Your task to perform on an android device: uninstall "LinkedIn" Image 0: 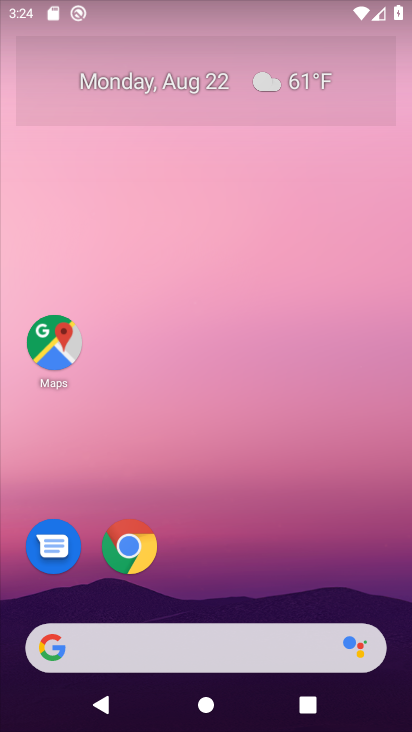
Step 0: drag from (391, 607) to (352, 127)
Your task to perform on an android device: uninstall "LinkedIn" Image 1: 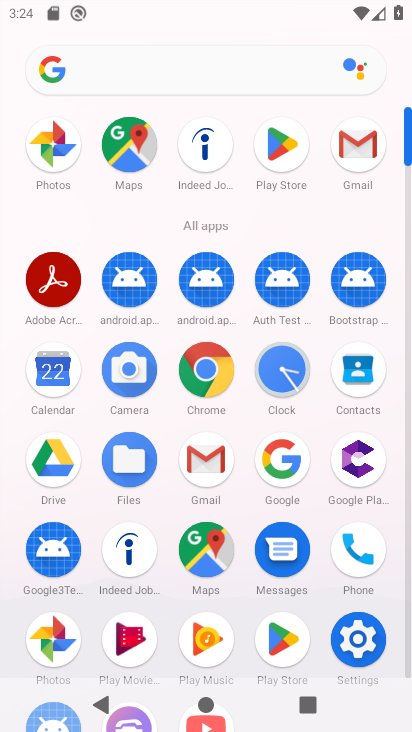
Step 1: click (285, 640)
Your task to perform on an android device: uninstall "LinkedIn" Image 2: 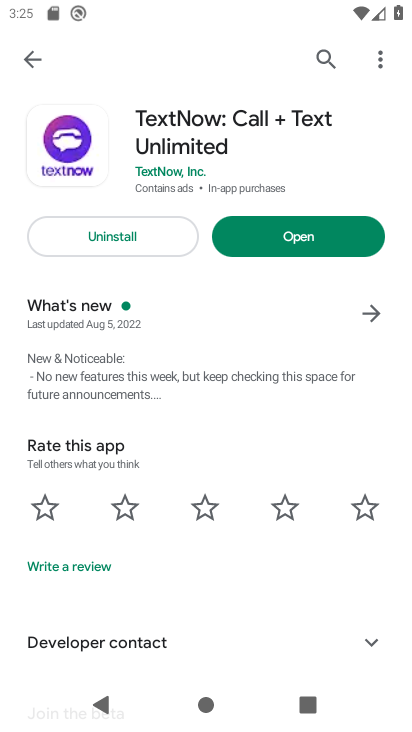
Step 2: click (322, 54)
Your task to perform on an android device: uninstall "LinkedIn" Image 3: 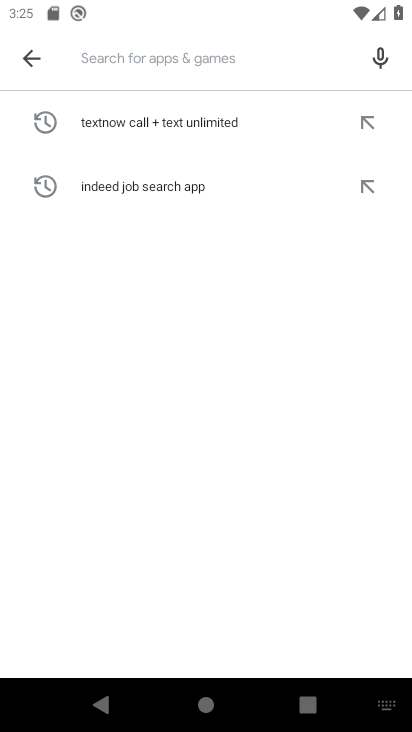
Step 3: type "LinkedIn"
Your task to perform on an android device: uninstall "LinkedIn" Image 4: 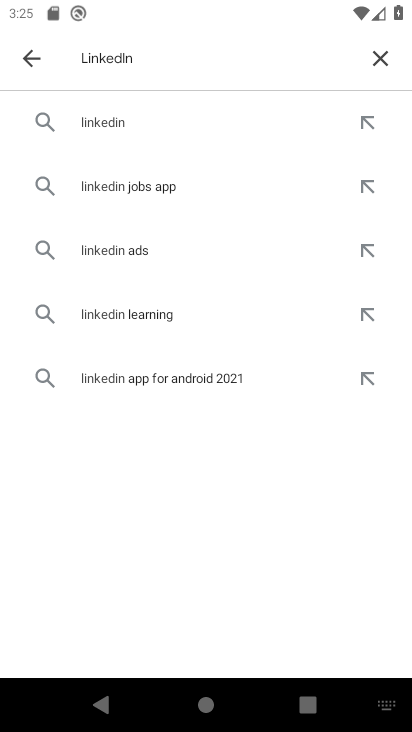
Step 4: click (90, 123)
Your task to perform on an android device: uninstall "LinkedIn" Image 5: 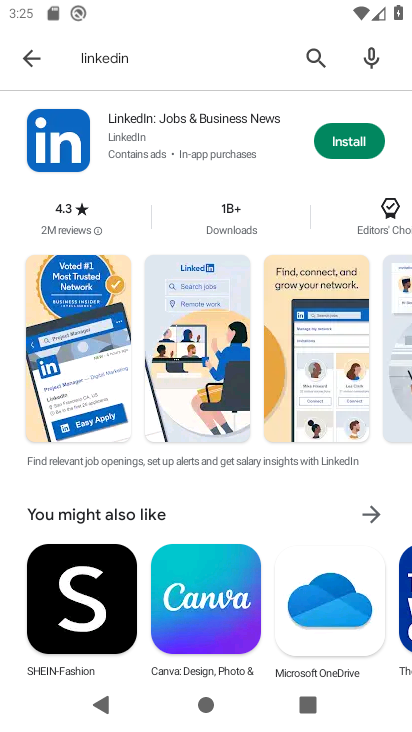
Step 5: click (124, 124)
Your task to perform on an android device: uninstall "LinkedIn" Image 6: 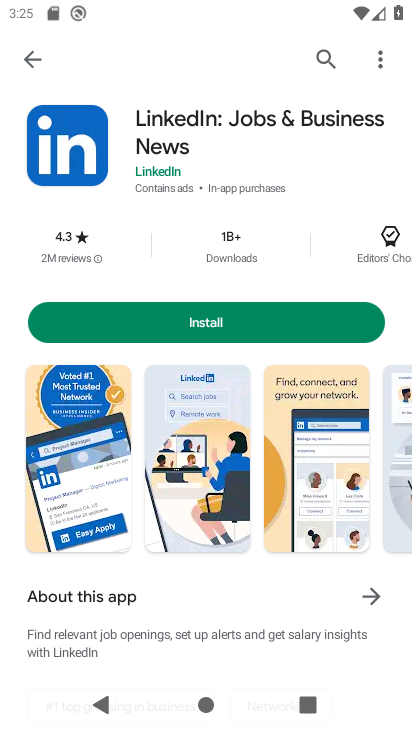
Step 6: task complete